Your task to perform on an android device: uninstall "Microsoft Outlook" Image 0: 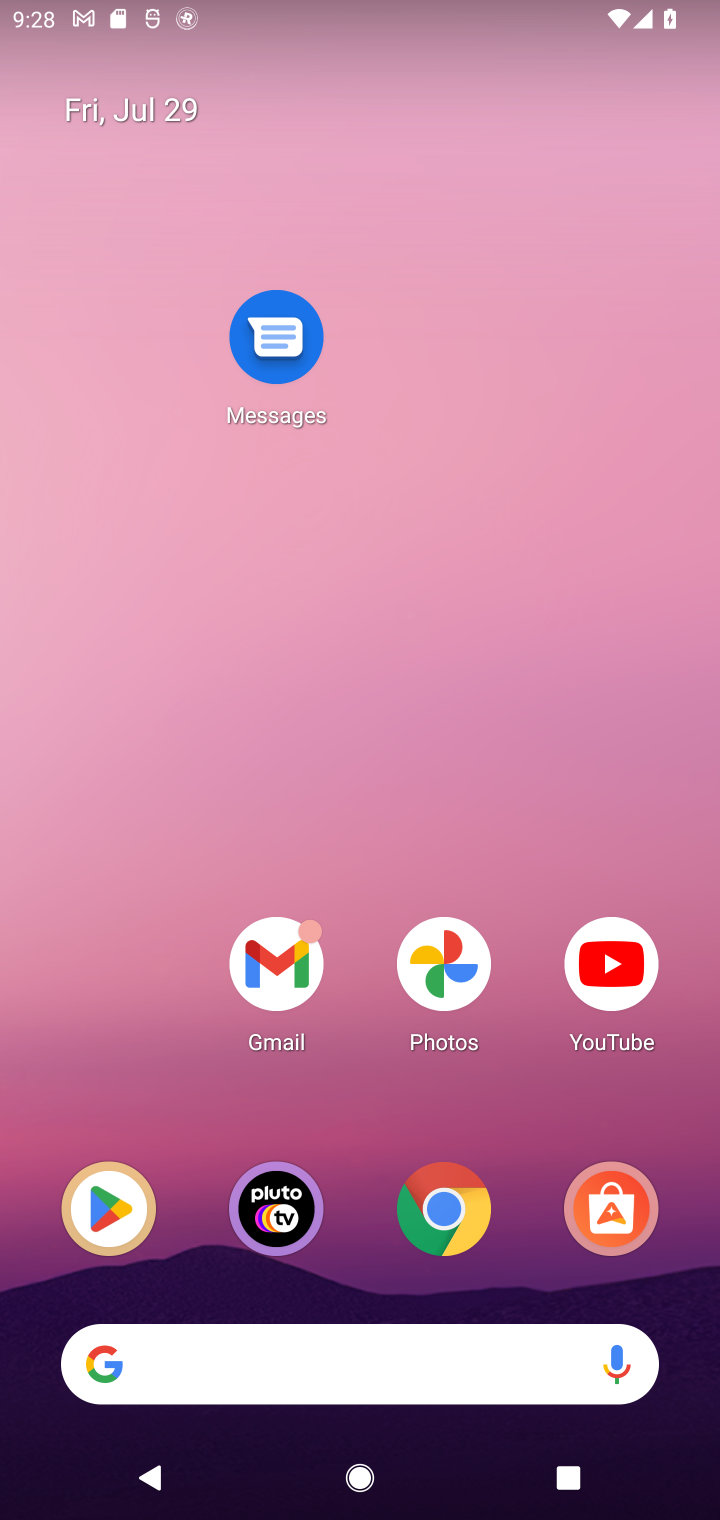
Step 0: drag from (228, 1341) to (476, 68)
Your task to perform on an android device: uninstall "Microsoft Outlook" Image 1: 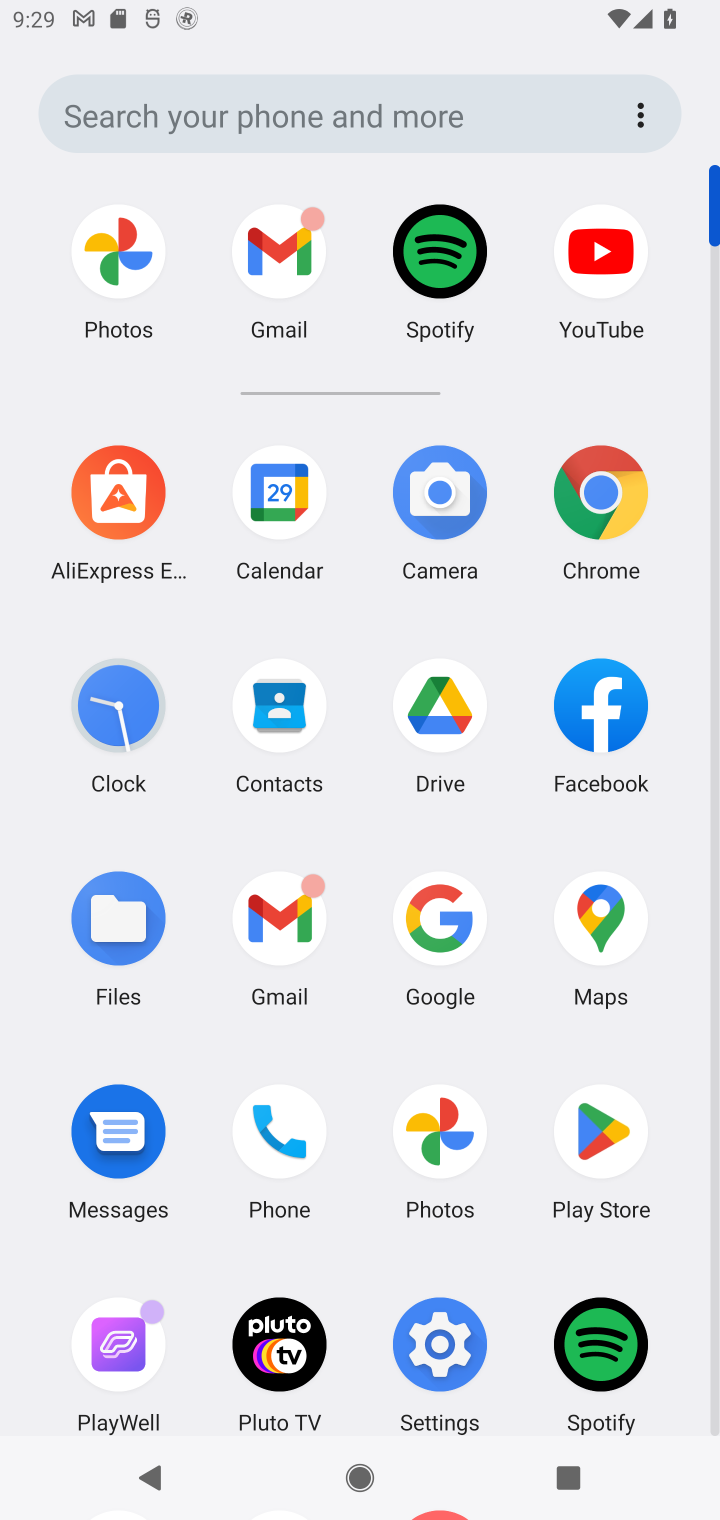
Step 1: click (612, 1134)
Your task to perform on an android device: uninstall "Microsoft Outlook" Image 2: 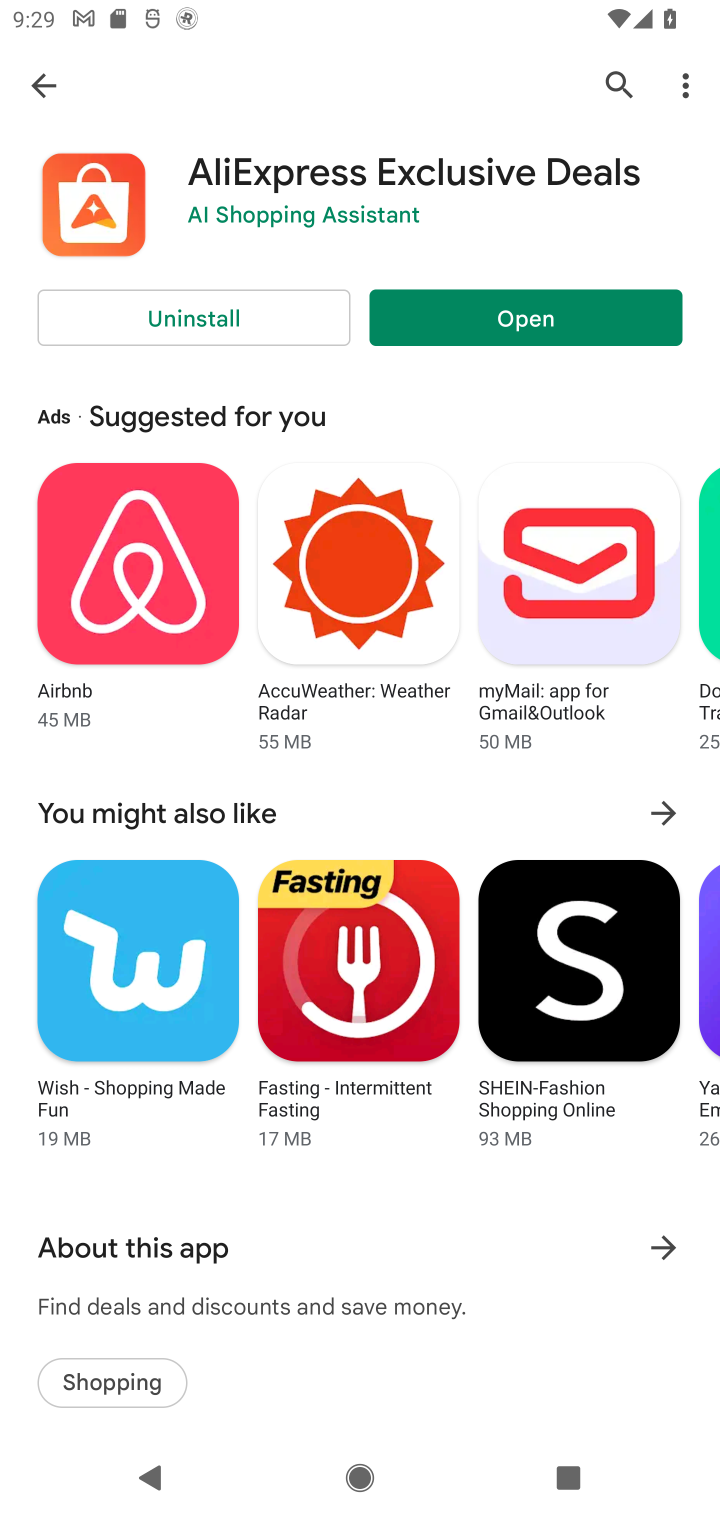
Step 2: click (615, 85)
Your task to perform on an android device: uninstall "Microsoft Outlook" Image 3: 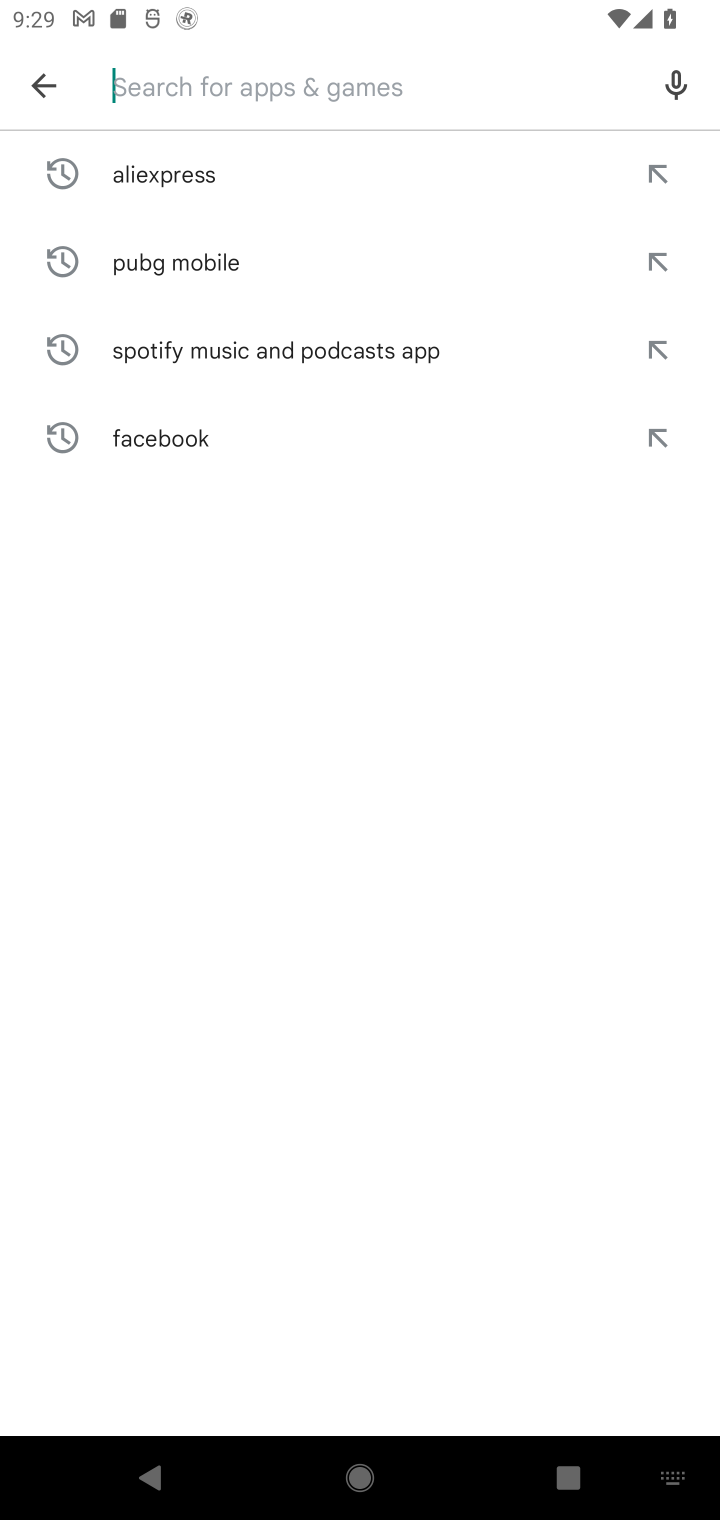
Step 3: click (181, 89)
Your task to perform on an android device: uninstall "Microsoft Outlook" Image 4: 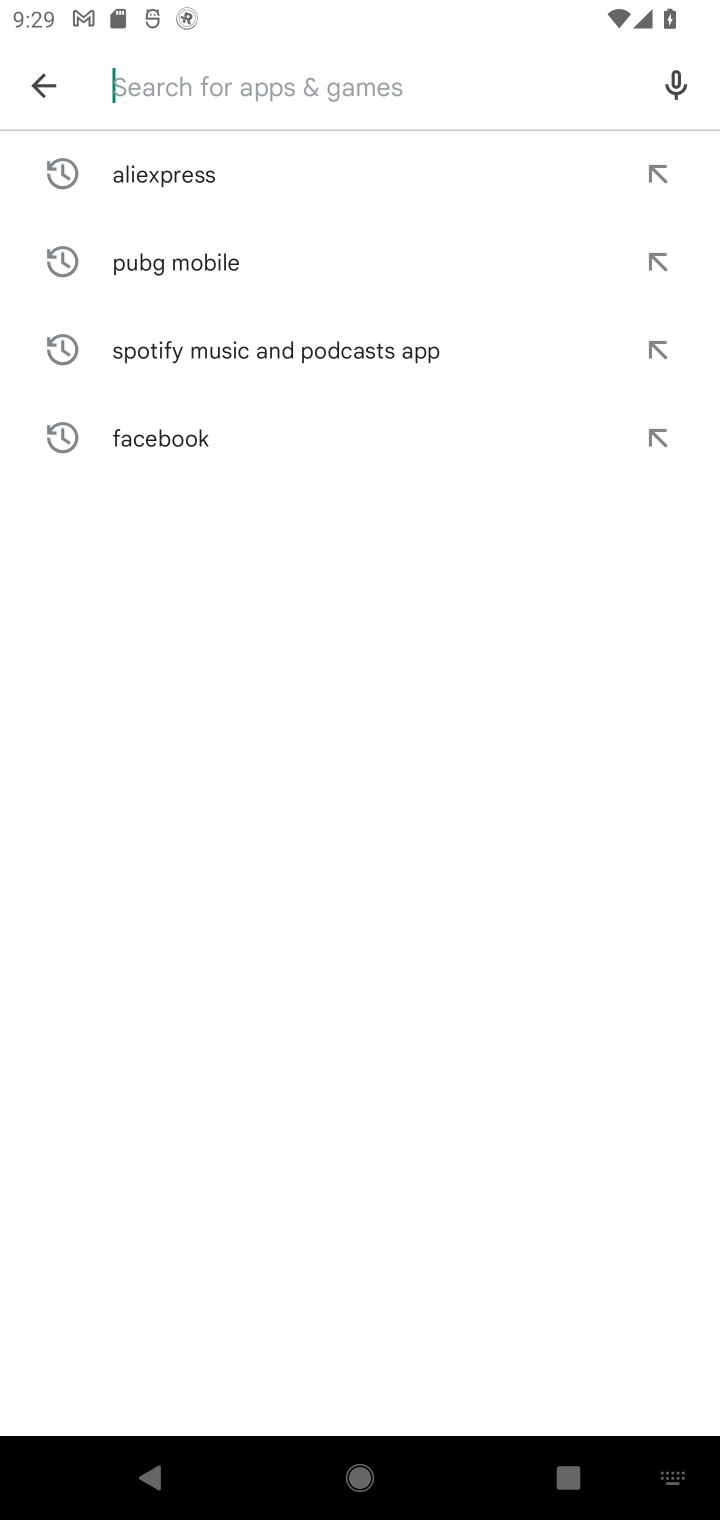
Step 4: type "Microsoft Outlook"
Your task to perform on an android device: uninstall "Microsoft Outlook" Image 5: 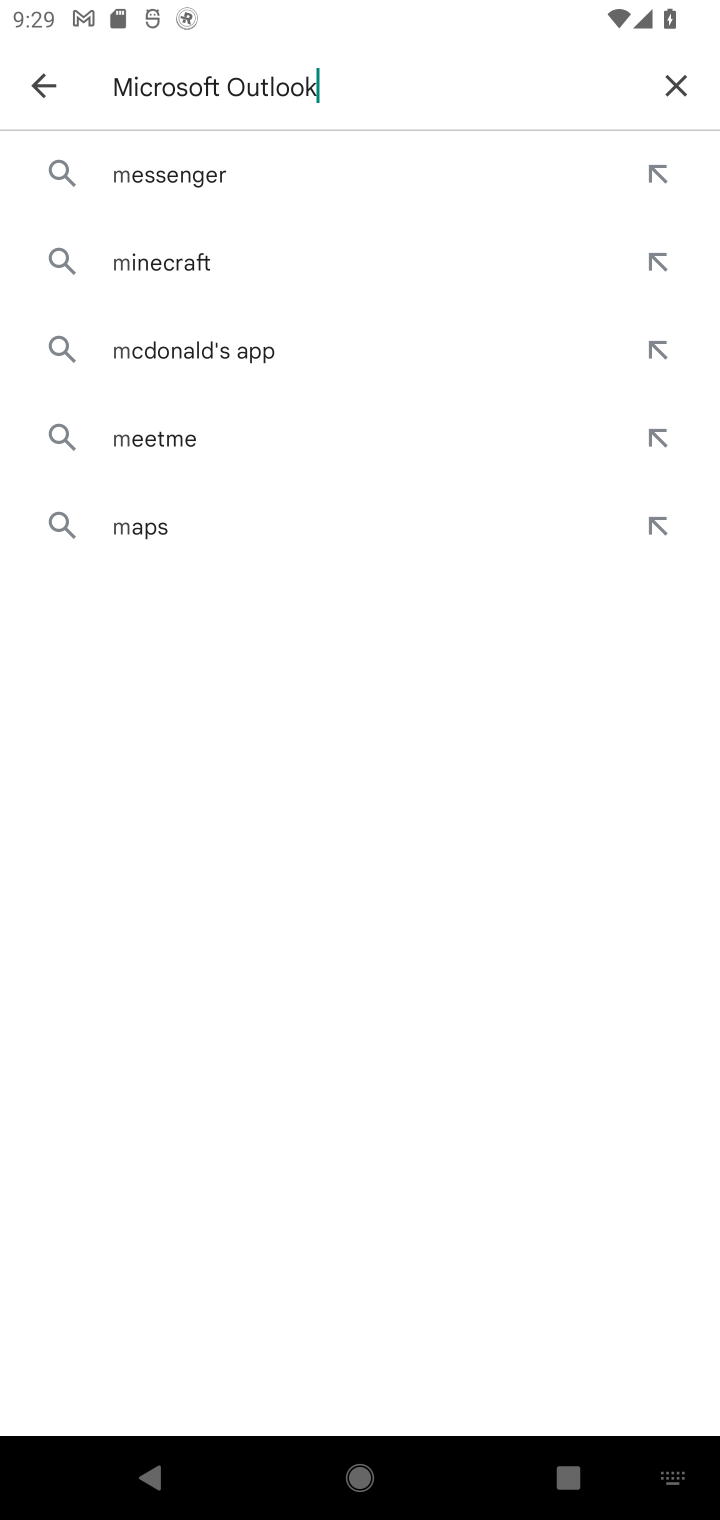
Step 5: type ""
Your task to perform on an android device: uninstall "Microsoft Outlook" Image 6: 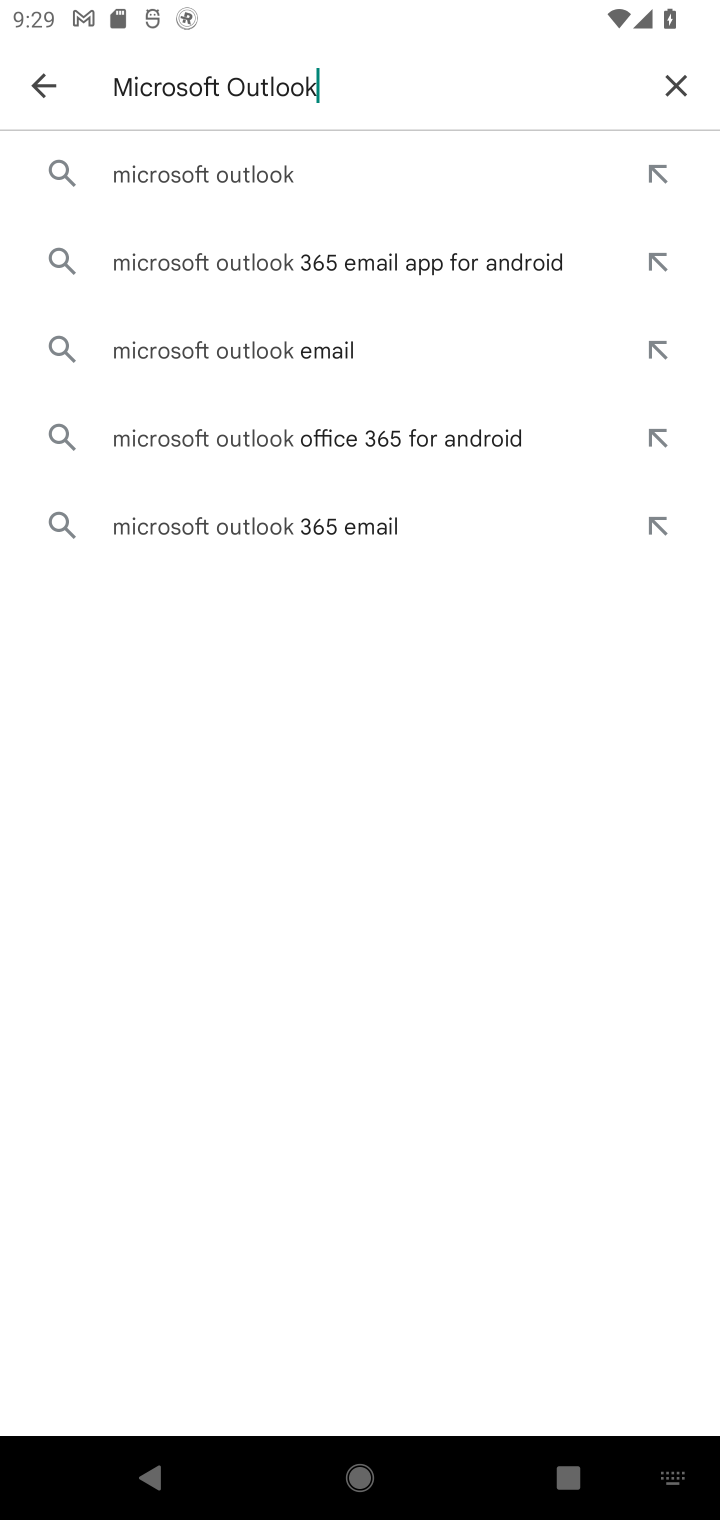
Step 6: click (262, 182)
Your task to perform on an android device: uninstall "Microsoft Outlook" Image 7: 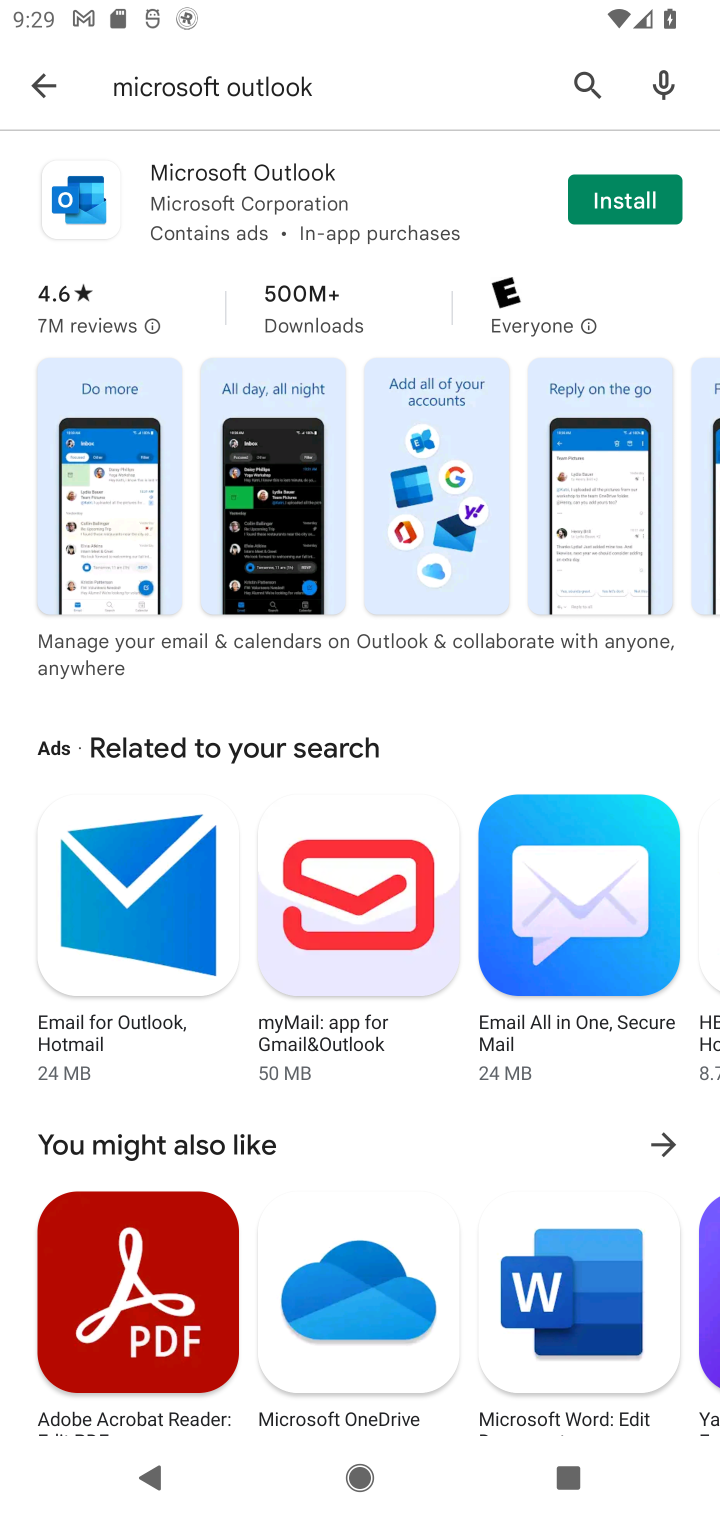
Step 7: task complete